Your task to perform on an android device: Find coffee shops on Maps Image 0: 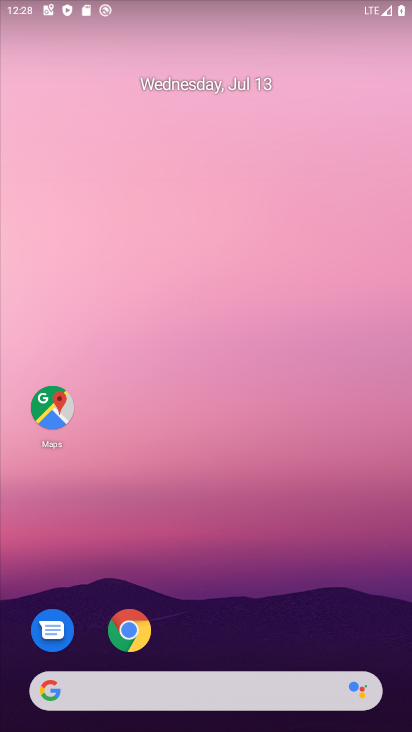
Step 0: drag from (401, 671) to (22, 226)
Your task to perform on an android device: Find coffee shops on Maps Image 1: 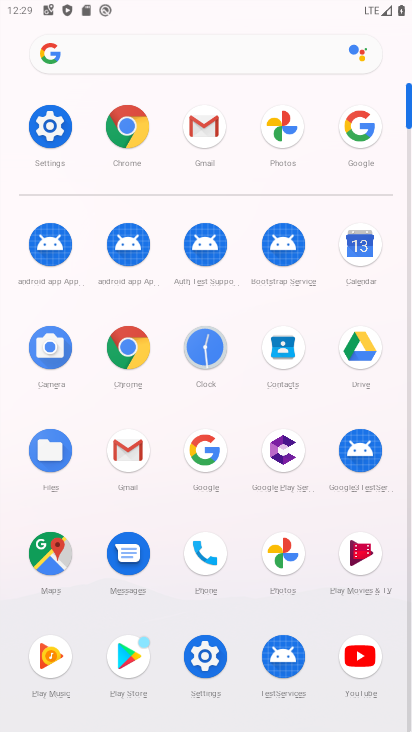
Step 1: click (41, 556)
Your task to perform on an android device: Find coffee shops on Maps Image 2: 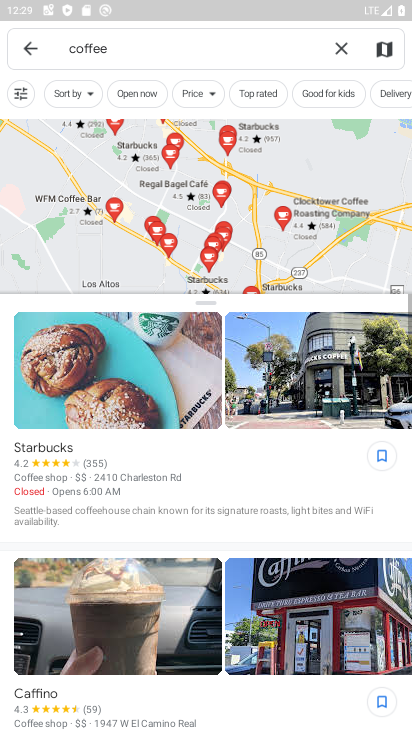
Step 2: task complete